Your task to perform on an android device: open app "Spotify: Music and Podcasts" Image 0: 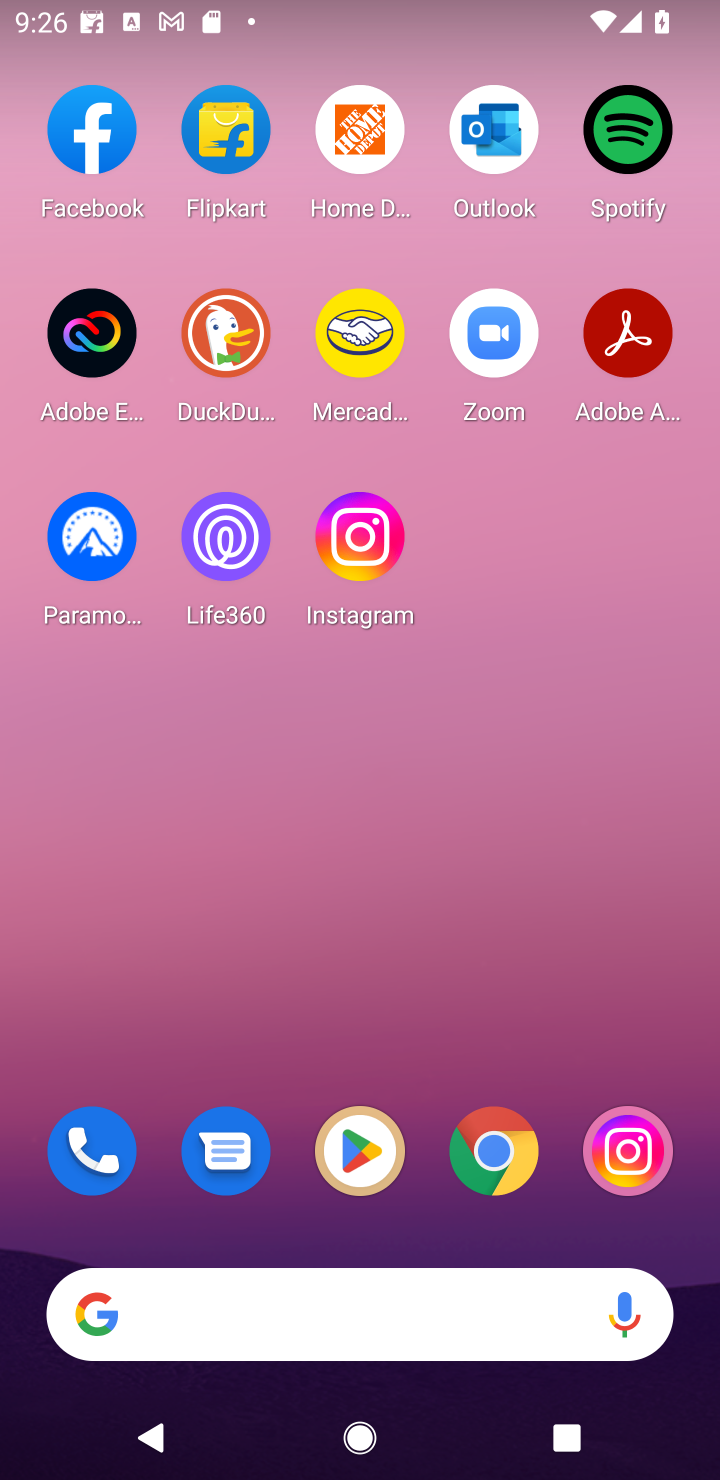
Step 0: press home button
Your task to perform on an android device: open app "Spotify: Music and Podcasts" Image 1: 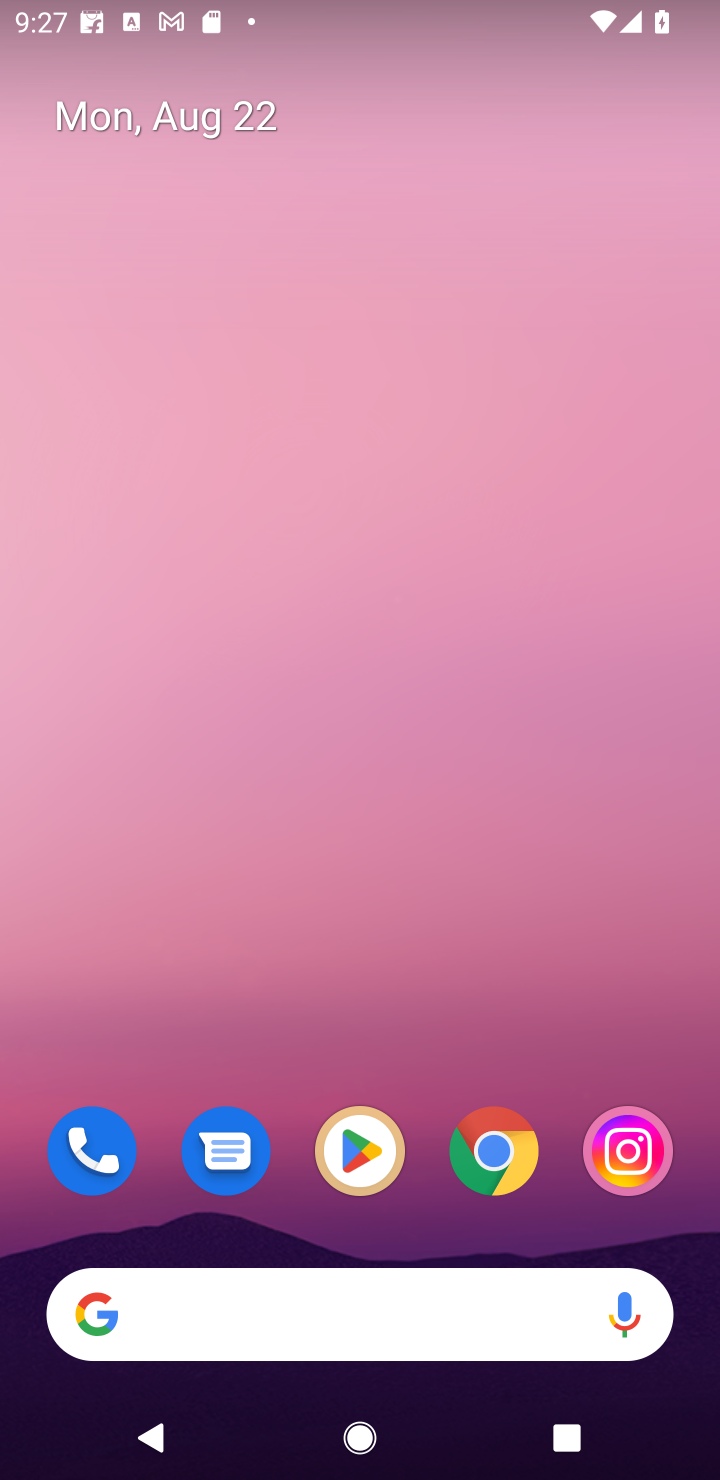
Step 1: click (349, 1178)
Your task to perform on an android device: open app "Spotify: Music and Podcasts" Image 2: 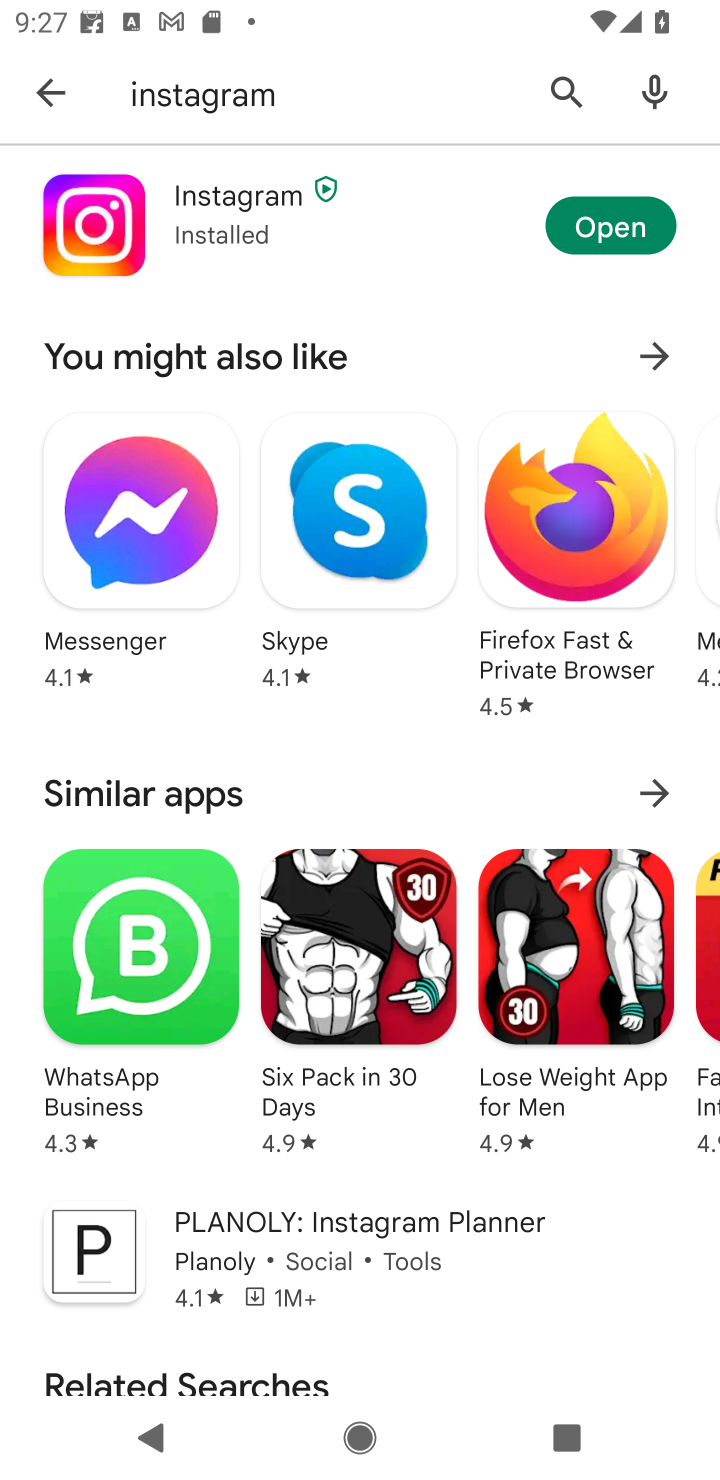
Step 2: click (357, 1143)
Your task to perform on an android device: open app "Spotify: Music and Podcasts" Image 3: 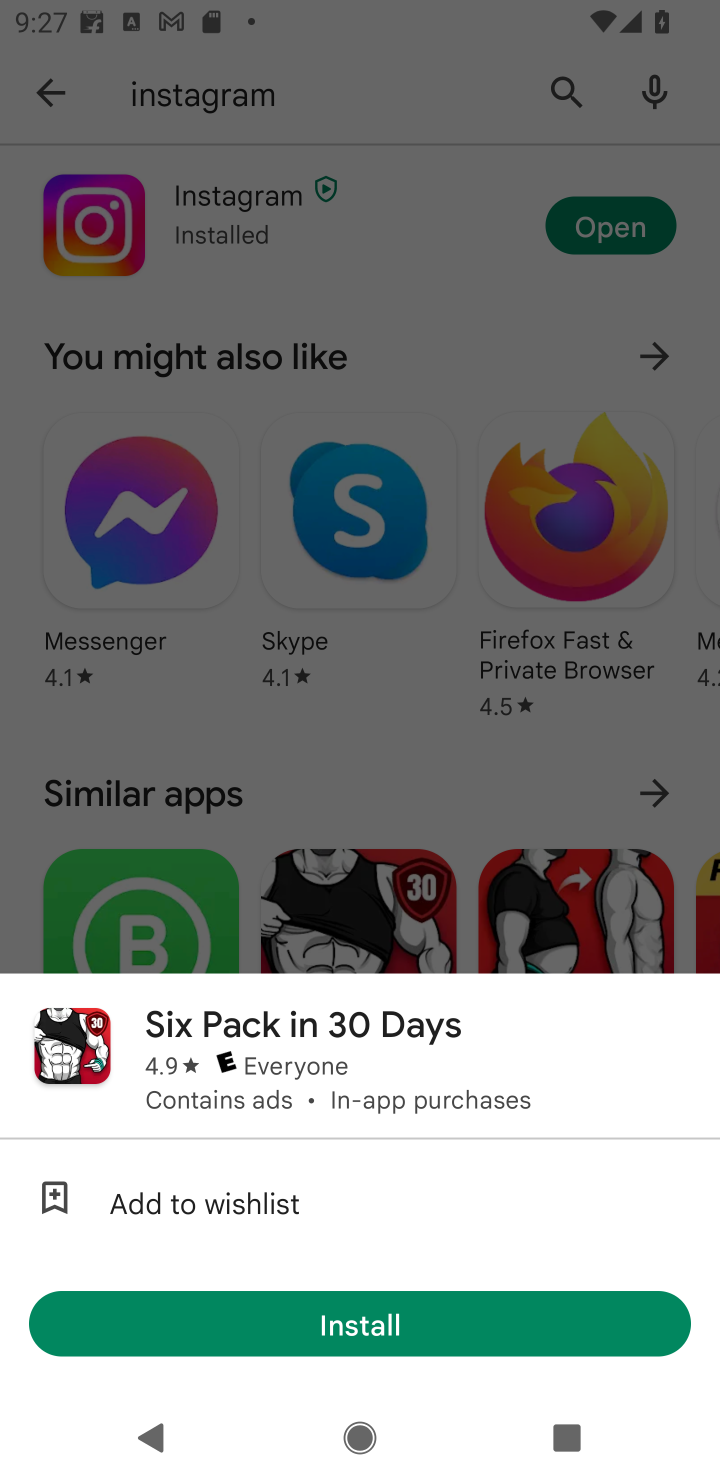
Step 3: click (567, 87)
Your task to perform on an android device: open app "Spotify: Music and Podcasts" Image 4: 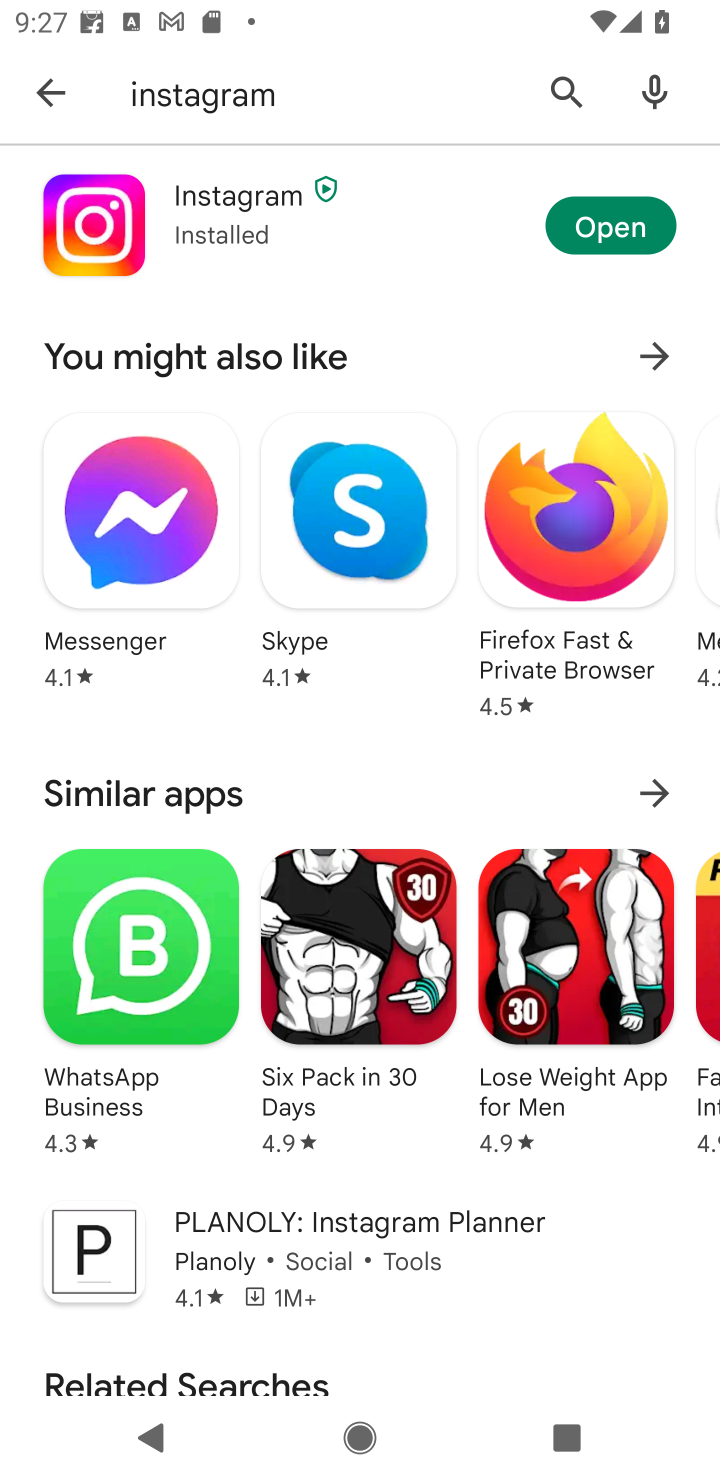
Step 4: click (567, 83)
Your task to perform on an android device: open app "Spotify: Music and Podcasts" Image 5: 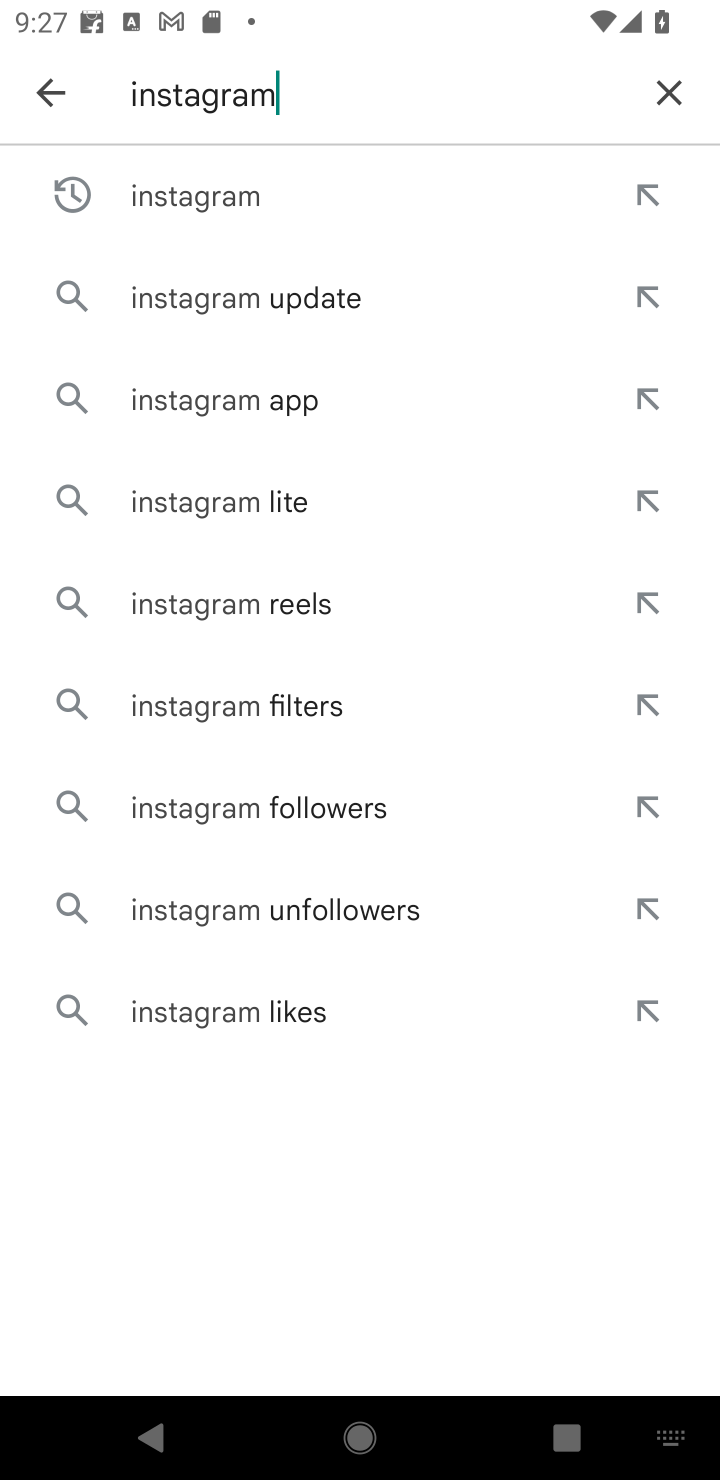
Step 5: click (674, 90)
Your task to perform on an android device: open app "Spotify: Music and Podcasts" Image 6: 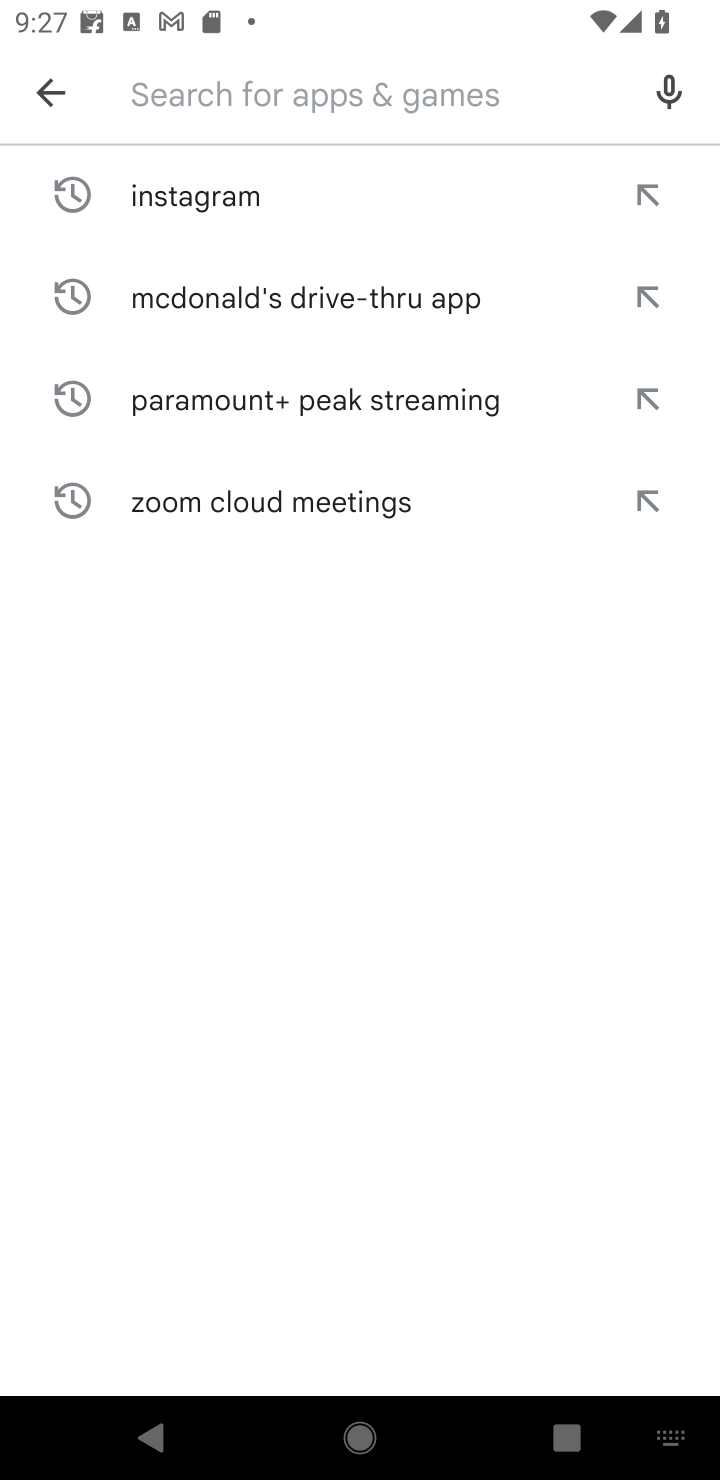
Step 6: type "Spotify: Music and Podcasts"
Your task to perform on an android device: open app "Spotify: Music and Podcasts" Image 7: 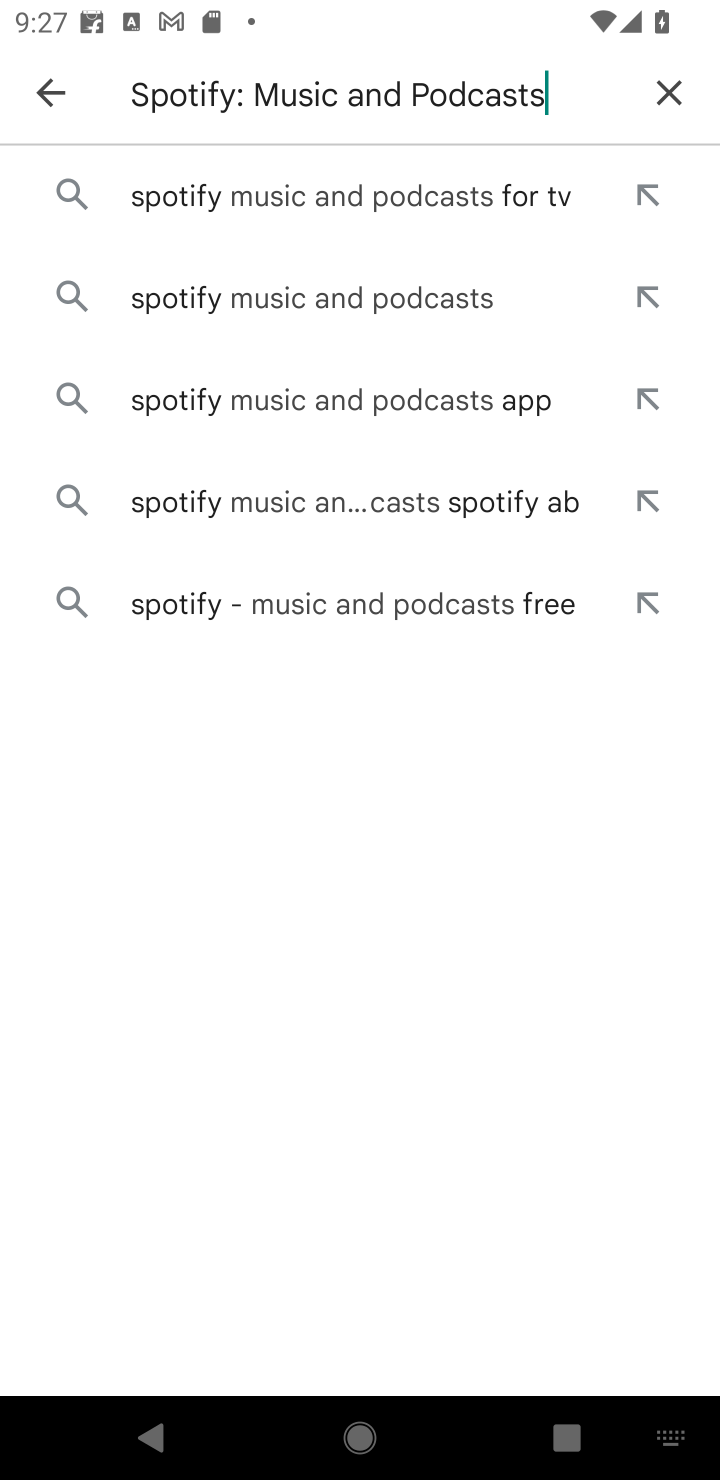
Step 7: click (204, 173)
Your task to perform on an android device: open app "Spotify: Music and Podcasts" Image 8: 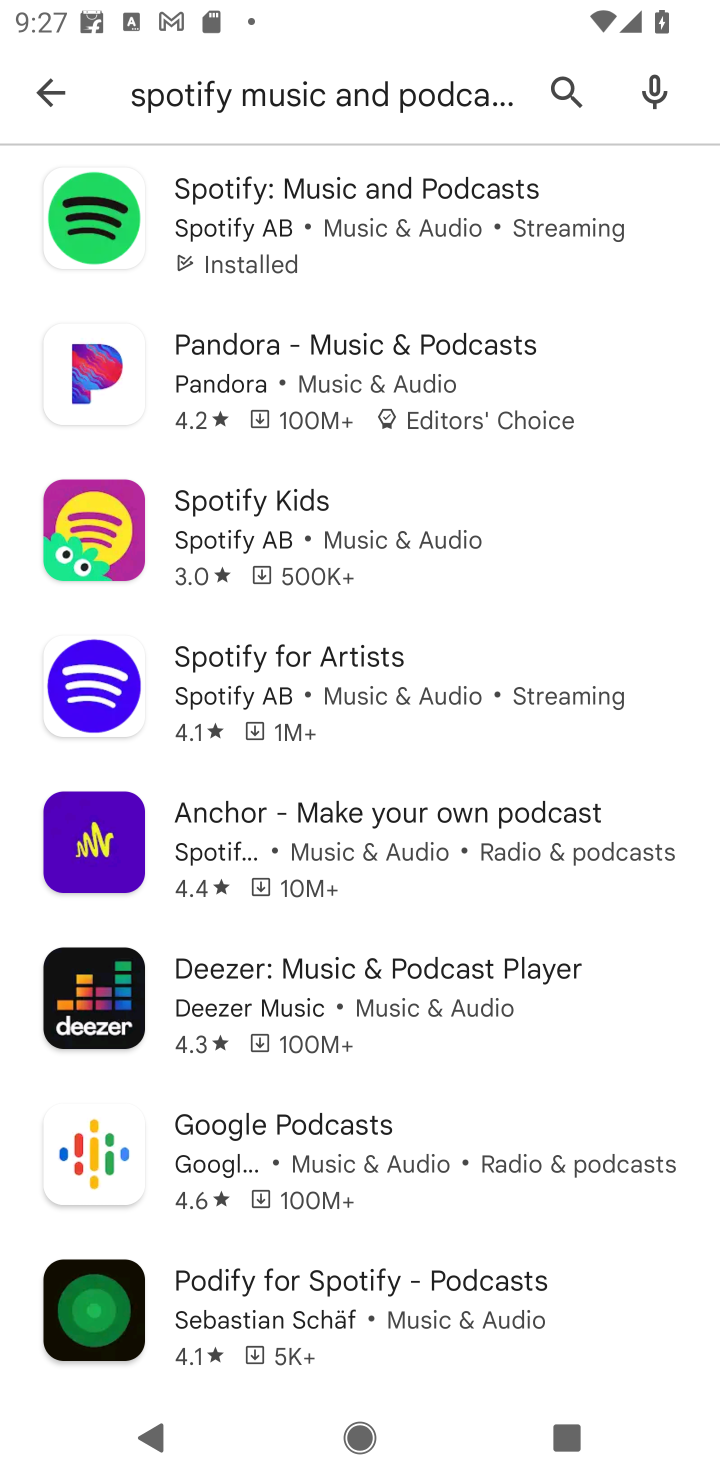
Step 8: click (202, 215)
Your task to perform on an android device: open app "Spotify: Music and Podcasts" Image 9: 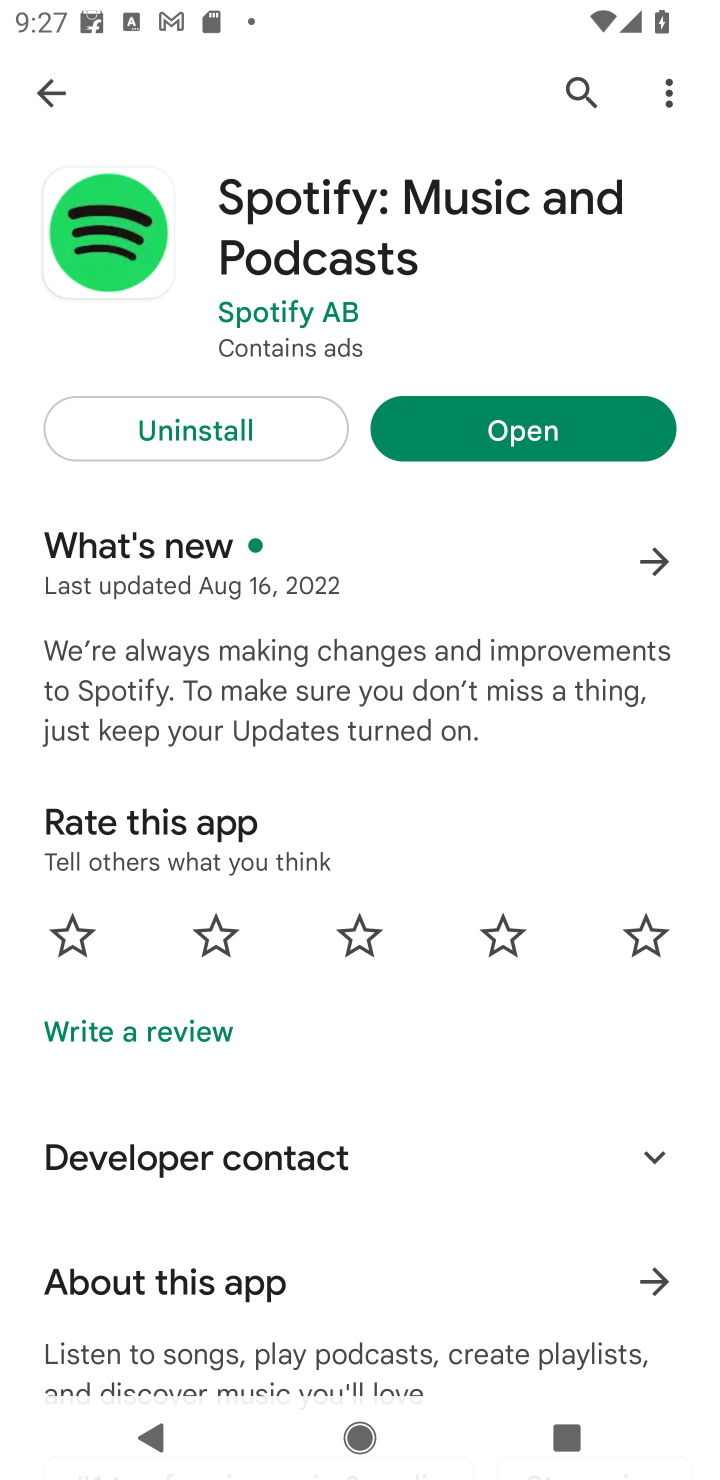
Step 9: click (545, 409)
Your task to perform on an android device: open app "Spotify: Music and Podcasts" Image 10: 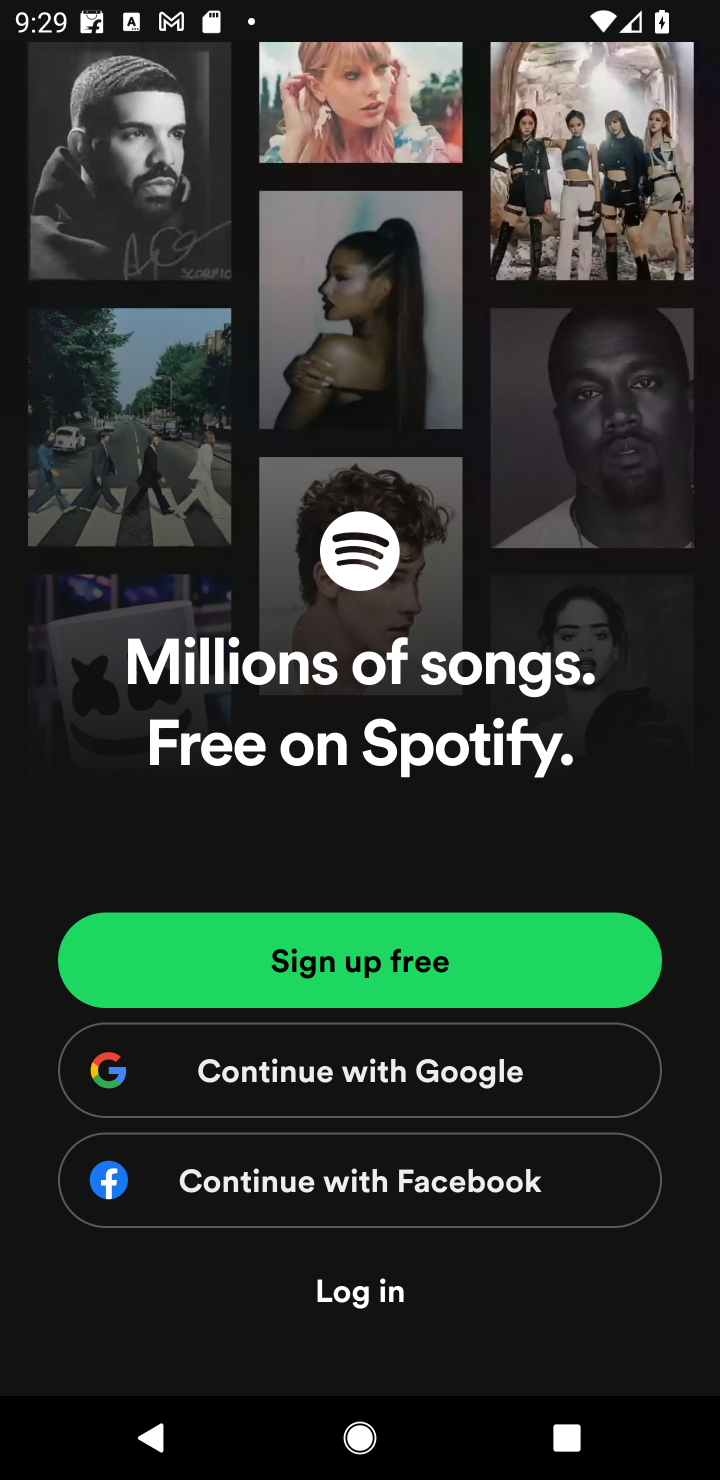
Step 10: task complete